Your task to perform on an android device: What's the weather going to be tomorrow? Image 0: 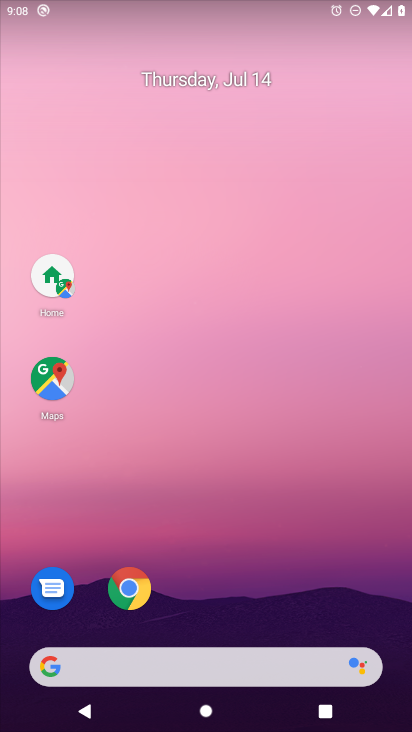
Step 0: click (83, 664)
Your task to perform on an android device: What's the weather going to be tomorrow? Image 1: 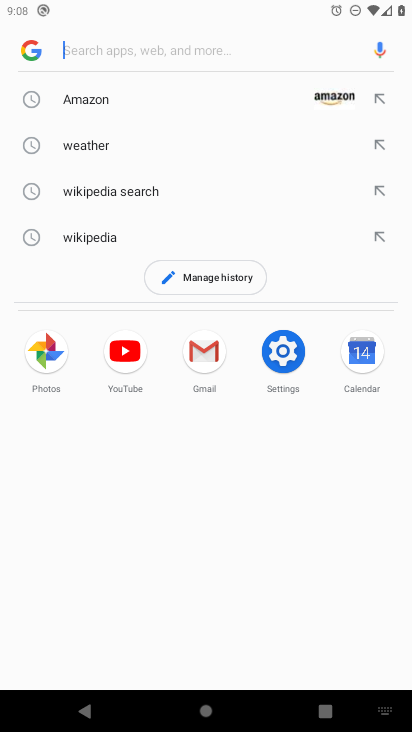
Step 1: type "What's the weather going to be tomorrow?"
Your task to perform on an android device: What's the weather going to be tomorrow? Image 2: 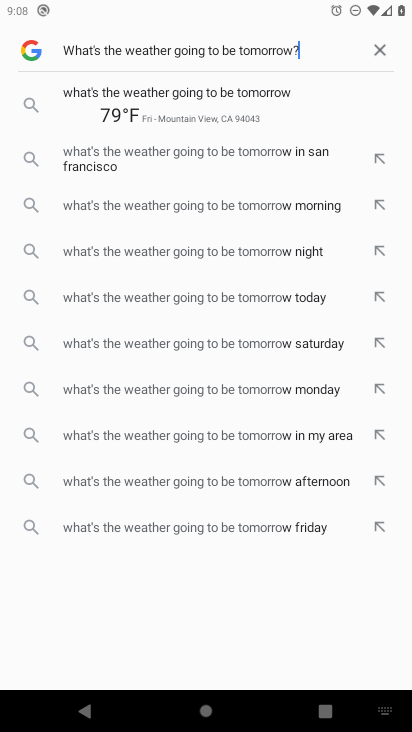
Step 2: type ""
Your task to perform on an android device: What's the weather going to be tomorrow? Image 3: 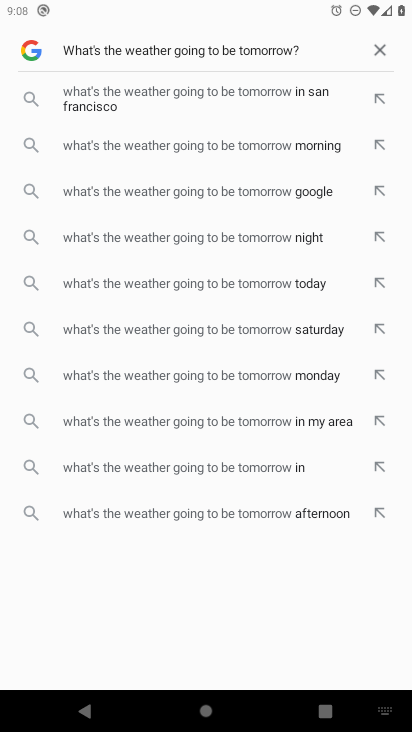
Step 3: type ""
Your task to perform on an android device: What's the weather going to be tomorrow? Image 4: 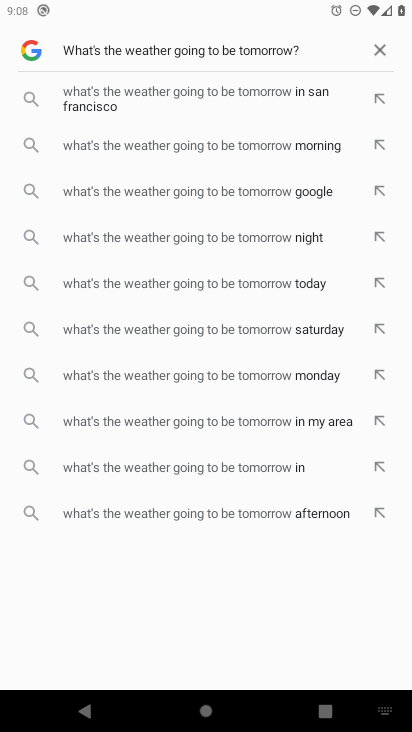
Step 4: type ""
Your task to perform on an android device: What's the weather going to be tomorrow? Image 5: 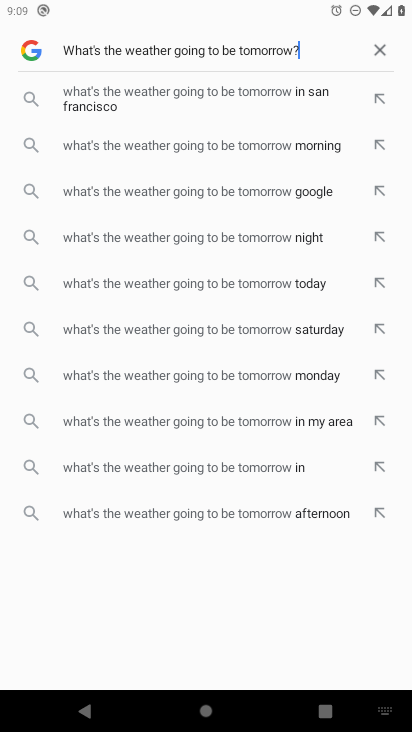
Step 5: task complete